Your task to perform on an android device: What's the weather today? Image 0: 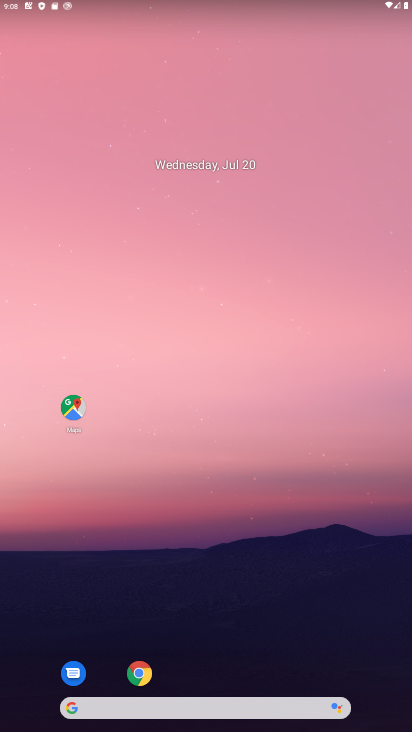
Step 0: drag from (196, 639) to (266, 22)
Your task to perform on an android device: What's the weather today? Image 1: 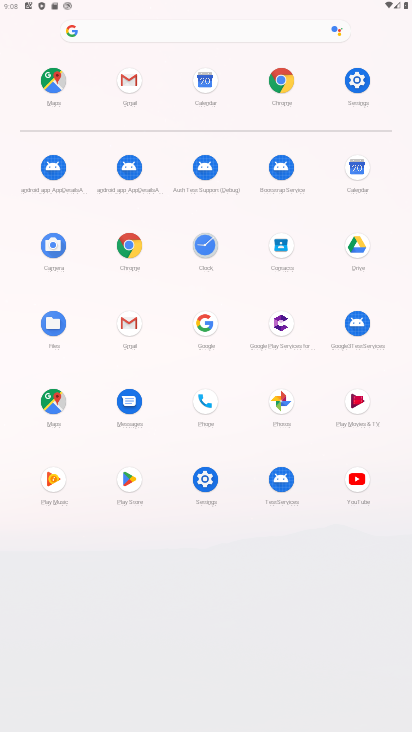
Step 1: click (206, 478)
Your task to perform on an android device: What's the weather today? Image 2: 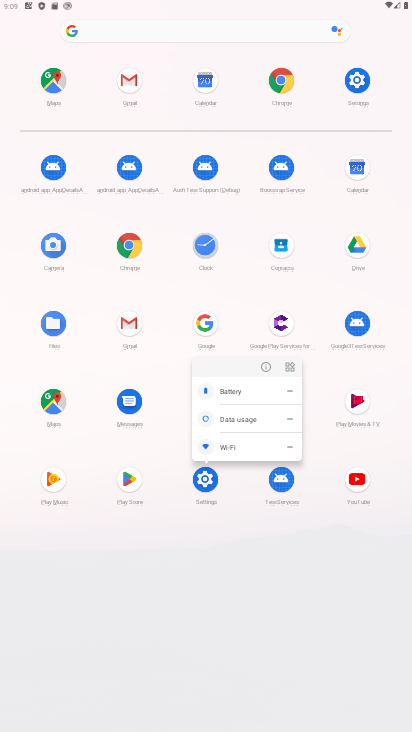
Step 2: click (265, 363)
Your task to perform on an android device: What's the weather today? Image 3: 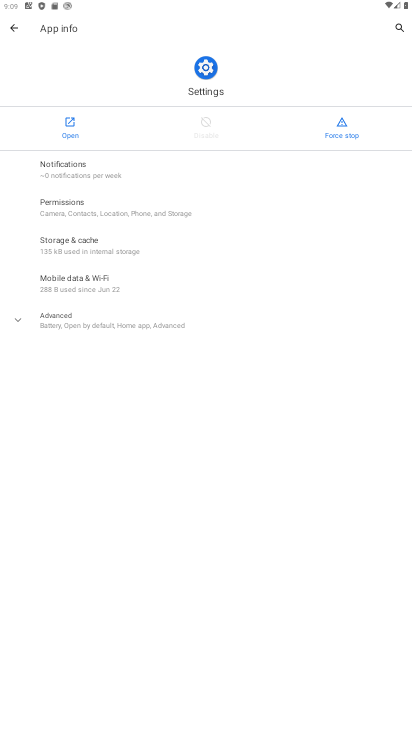
Step 3: click (69, 126)
Your task to perform on an android device: What's the weather today? Image 4: 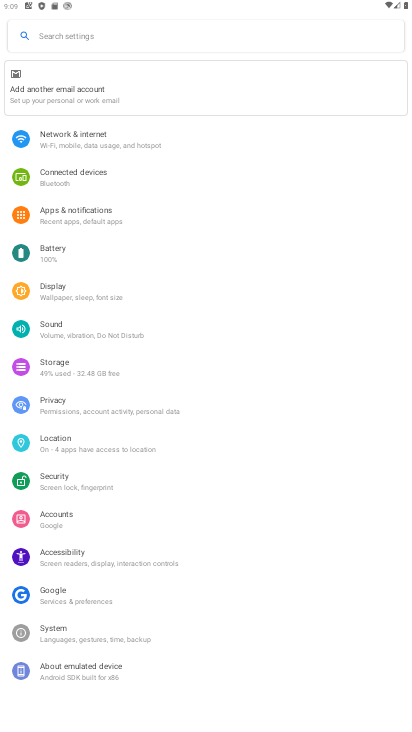
Step 4: press home button
Your task to perform on an android device: What's the weather today? Image 5: 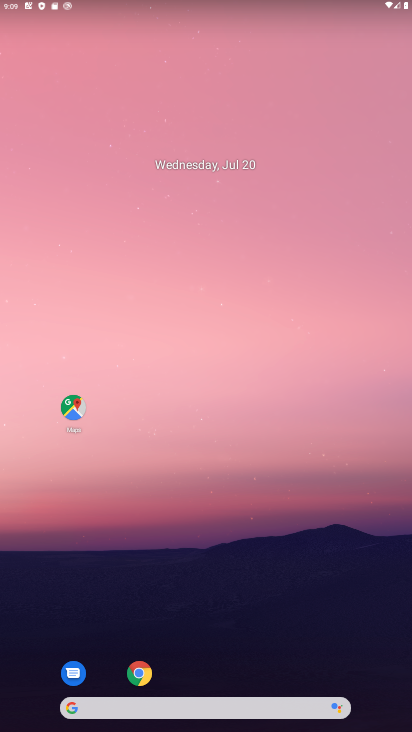
Step 5: drag from (173, 676) to (265, 11)
Your task to perform on an android device: What's the weather today? Image 6: 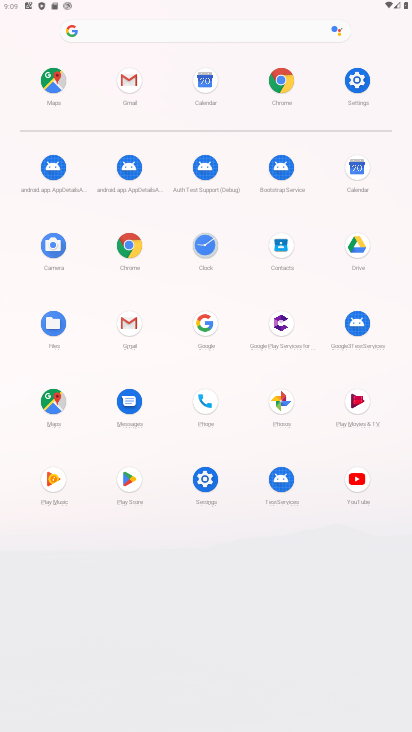
Step 6: click (165, 32)
Your task to perform on an android device: What's the weather today? Image 7: 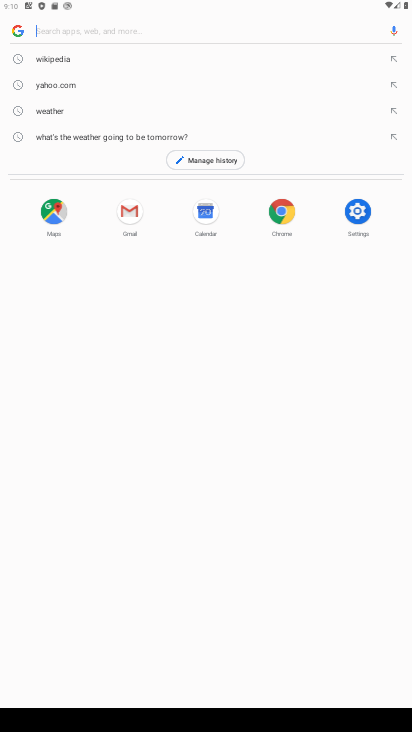
Step 7: type "What's the weather today?"
Your task to perform on an android device: What's the weather today? Image 8: 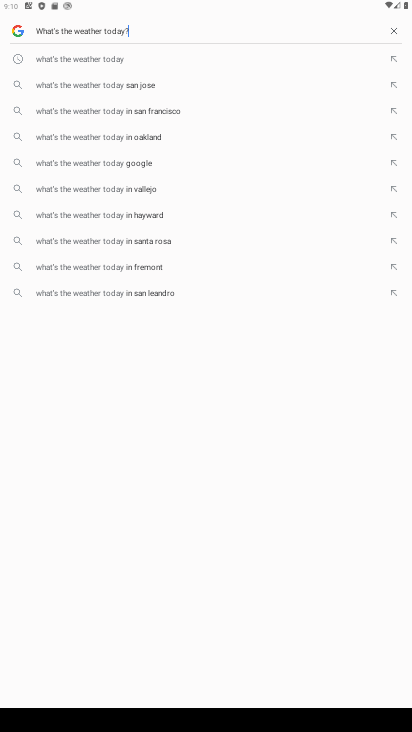
Step 8: type ""
Your task to perform on an android device: What's the weather today? Image 9: 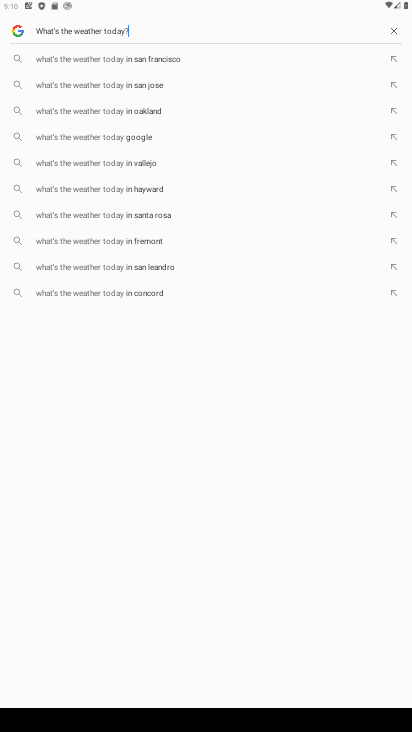
Step 9: click (141, 138)
Your task to perform on an android device: What's the weather today? Image 10: 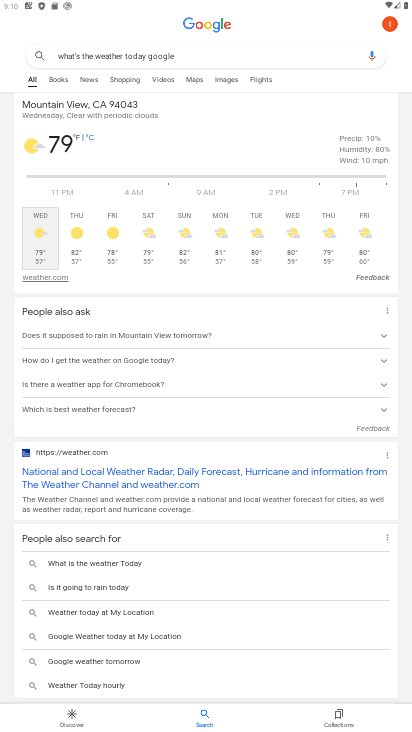
Step 10: task complete